Your task to perform on an android device: Turn off the flashlight Image 0: 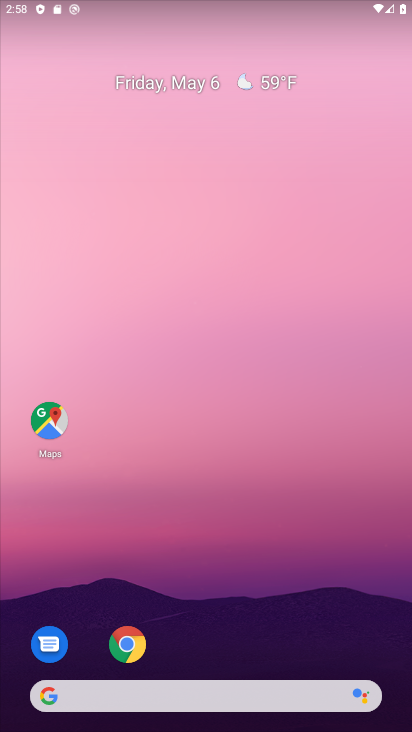
Step 0: drag from (186, 596) to (411, 537)
Your task to perform on an android device: Turn off the flashlight Image 1: 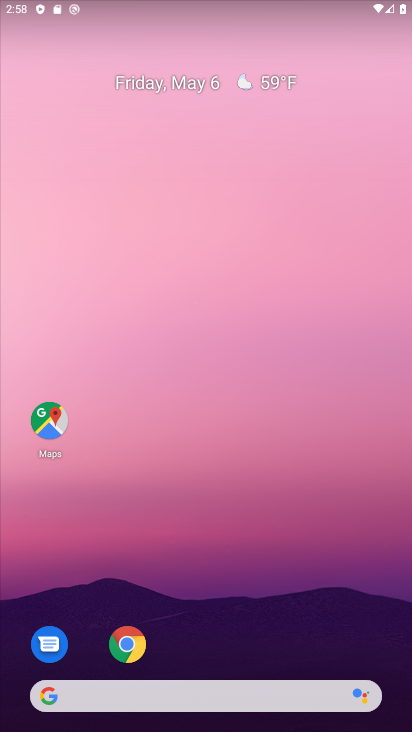
Step 1: drag from (217, 602) to (148, 76)
Your task to perform on an android device: Turn off the flashlight Image 2: 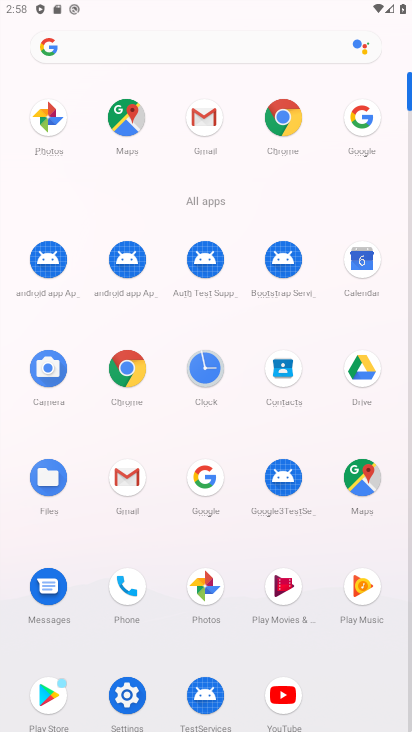
Step 2: click (127, 690)
Your task to perform on an android device: Turn off the flashlight Image 3: 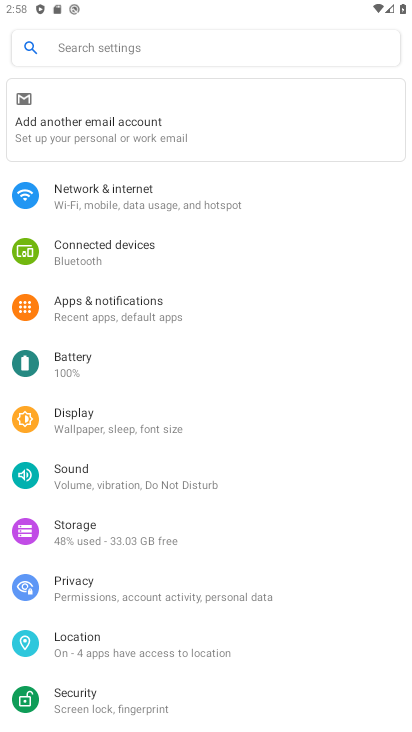
Step 3: click (107, 433)
Your task to perform on an android device: Turn off the flashlight Image 4: 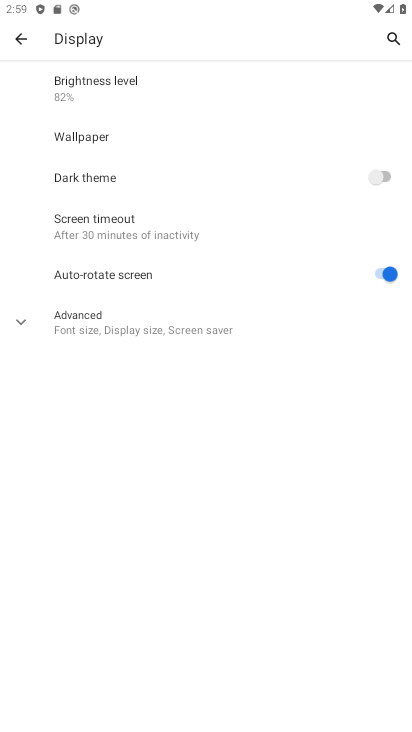
Step 4: click (152, 234)
Your task to perform on an android device: Turn off the flashlight Image 5: 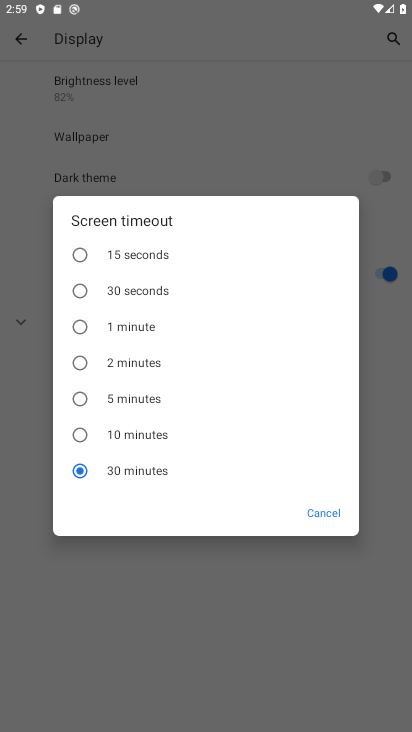
Step 5: click (316, 517)
Your task to perform on an android device: Turn off the flashlight Image 6: 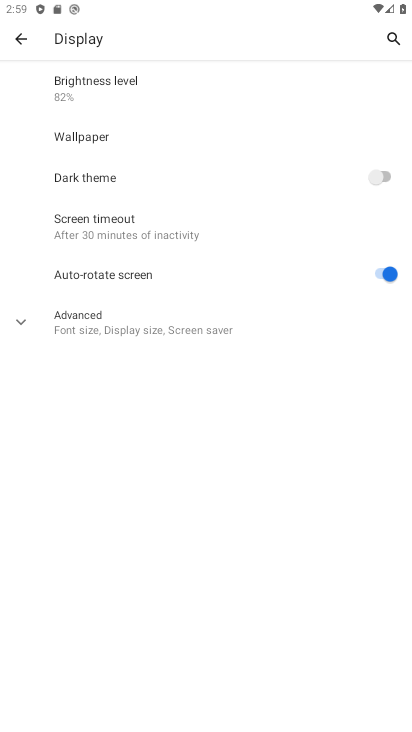
Step 6: click (21, 36)
Your task to perform on an android device: Turn off the flashlight Image 7: 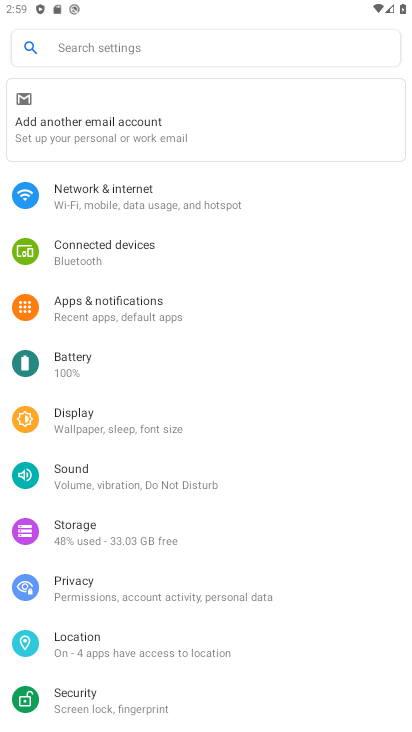
Step 7: drag from (163, 612) to (173, 467)
Your task to perform on an android device: Turn off the flashlight Image 8: 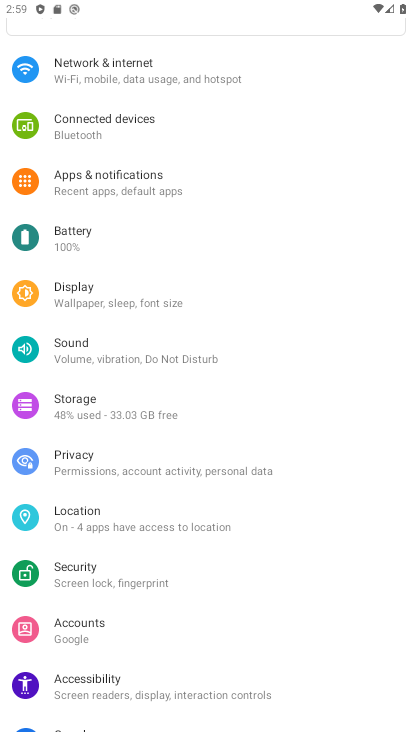
Step 8: drag from (173, 594) to (179, 488)
Your task to perform on an android device: Turn off the flashlight Image 9: 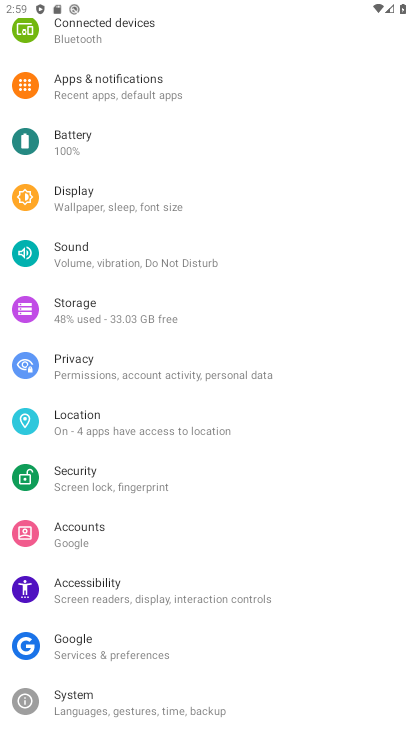
Step 9: drag from (129, 623) to (170, 497)
Your task to perform on an android device: Turn off the flashlight Image 10: 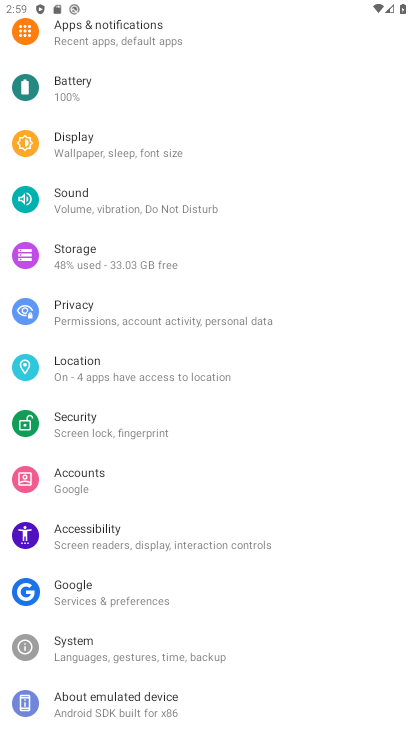
Step 10: drag from (123, 628) to (180, 505)
Your task to perform on an android device: Turn off the flashlight Image 11: 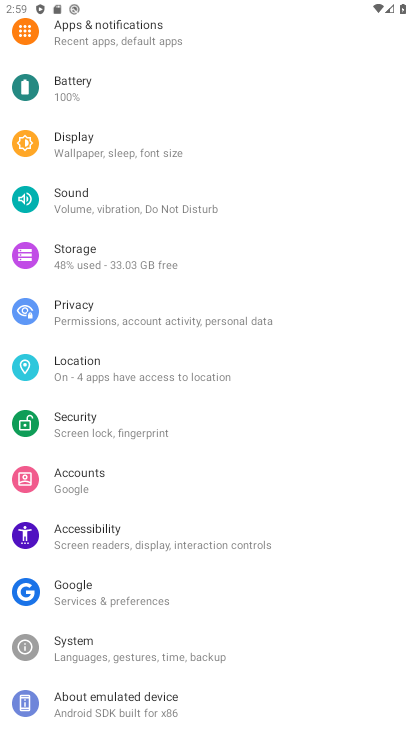
Step 11: drag from (130, 622) to (179, 434)
Your task to perform on an android device: Turn off the flashlight Image 12: 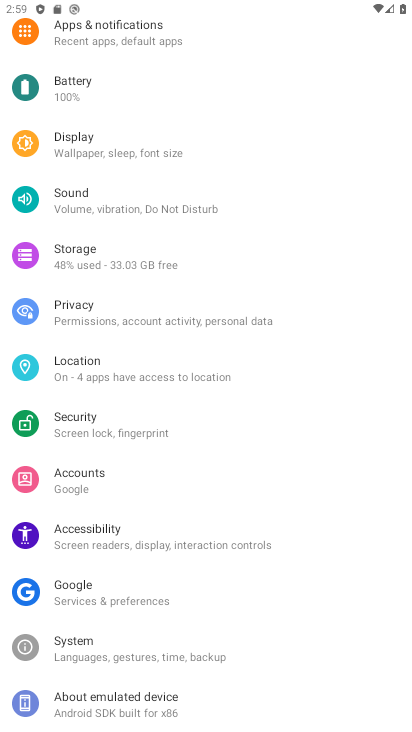
Step 12: click (121, 659)
Your task to perform on an android device: Turn off the flashlight Image 13: 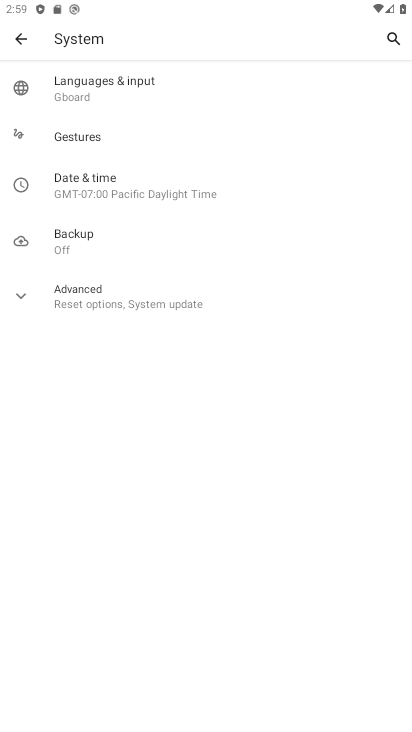
Step 13: click (42, 296)
Your task to perform on an android device: Turn off the flashlight Image 14: 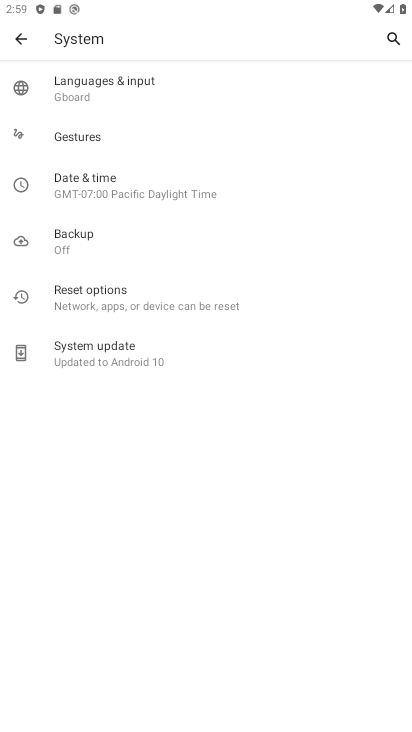
Step 14: click (124, 302)
Your task to perform on an android device: Turn off the flashlight Image 15: 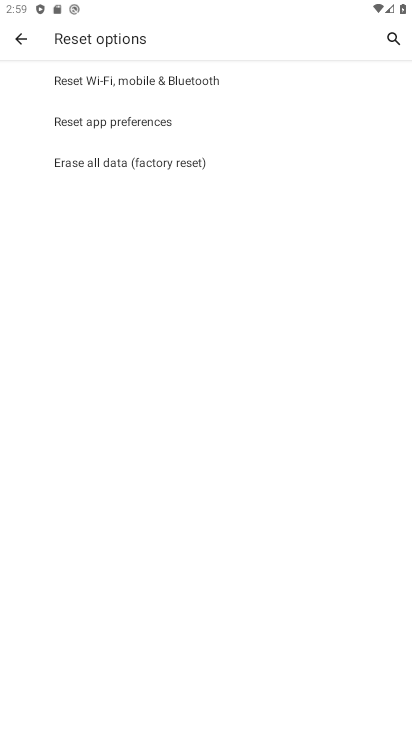
Step 15: click (24, 38)
Your task to perform on an android device: Turn off the flashlight Image 16: 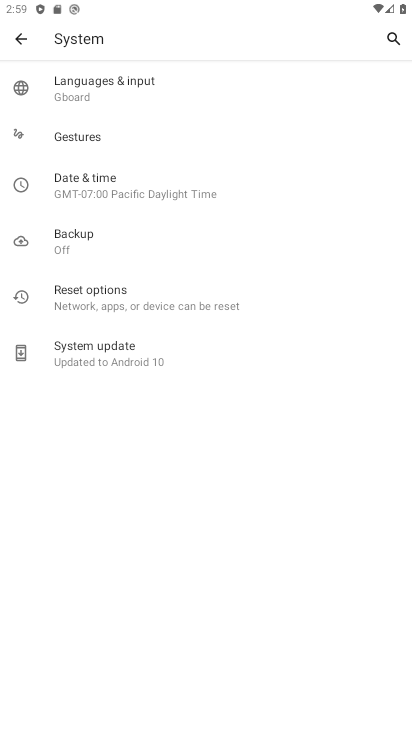
Step 16: click (16, 46)
Your task to perform on an android device: Turn off the flashlight Image 17: 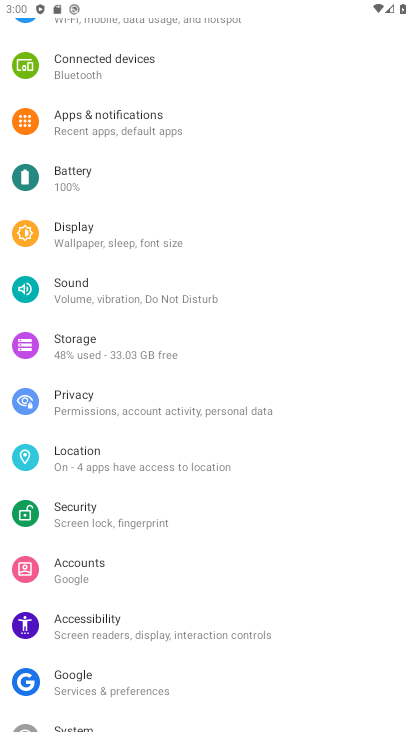
Step 17: task complete